Your task to perform on an android device: Go to calendar. Show me events next week Image 0: 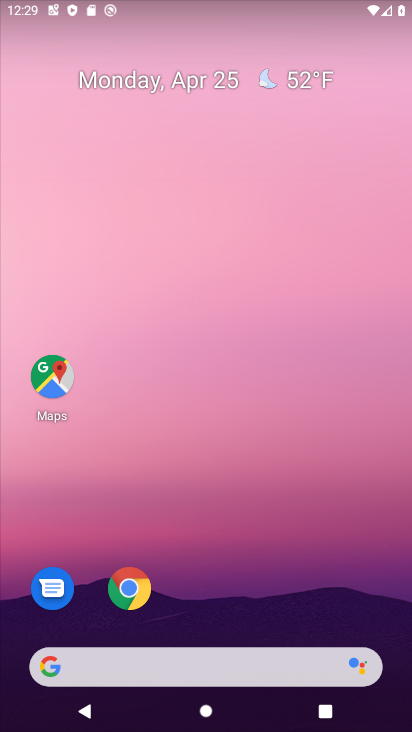
Step 0: drag from (268, 403) to (372, 18)
Your task to perform on an android device: Go to calendar. Show me events next week Image 1: 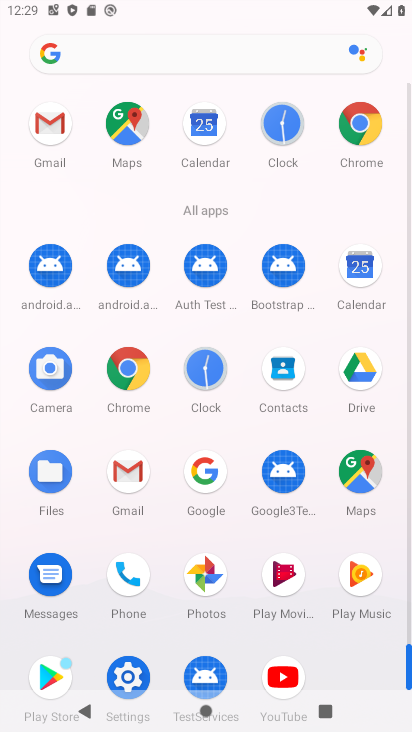
Step 1: click (206, 126)
Your task to perform on an android device: Go to calendar. Show me events next week Image 2: 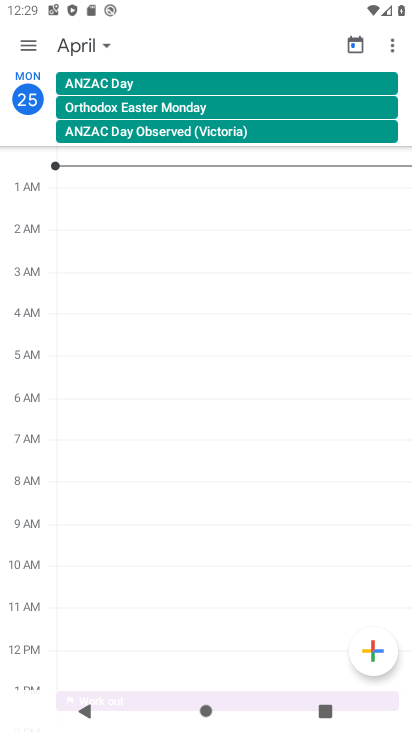
Step 2: click (46, 50)
Your task to perform on an android device: Go to calendar. Show me events next week Image 3: 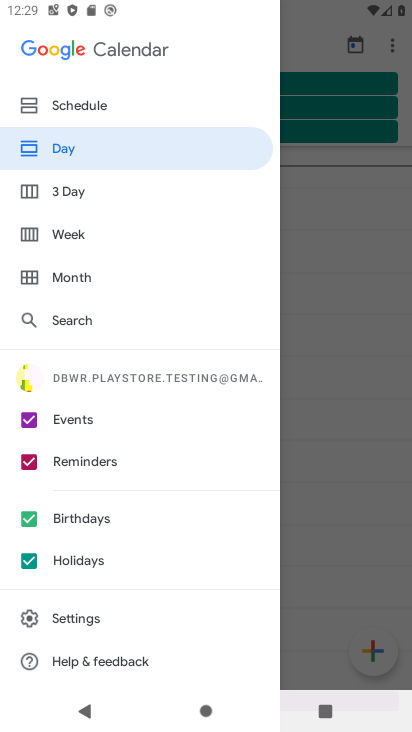
Step 3: click (108, 237)
Your task to perform on an android device: Go to calendar. Show me events next week Image 4: 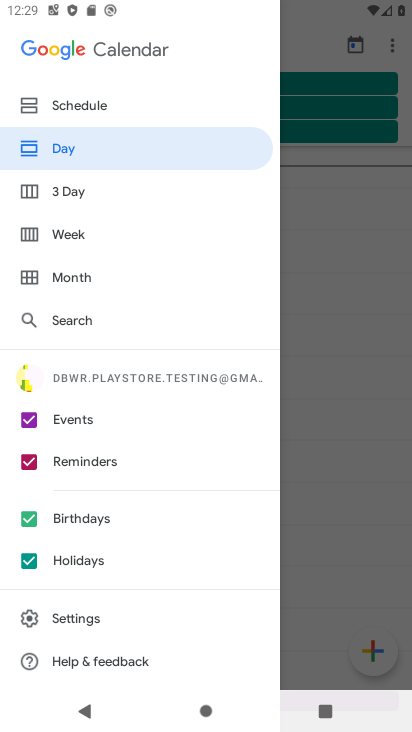
Step 4: click (91, 238)
Your task to perform on an android device: Go to calendar. Show me events next week Image 5: 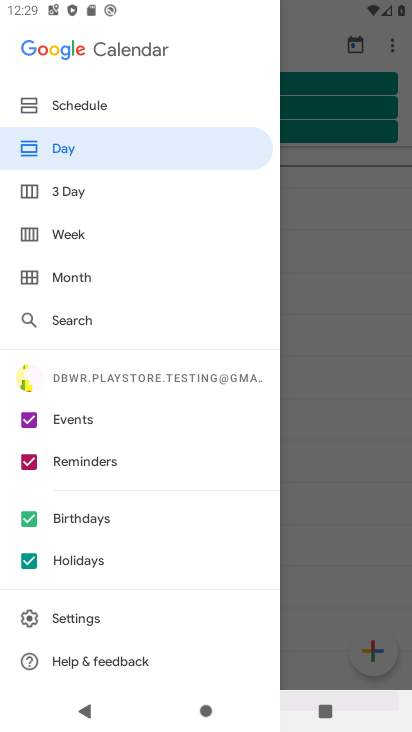
Step 5: click (96, 230)
Your task to perform on an android device: Go to calendar. Show me events next week Image 6: 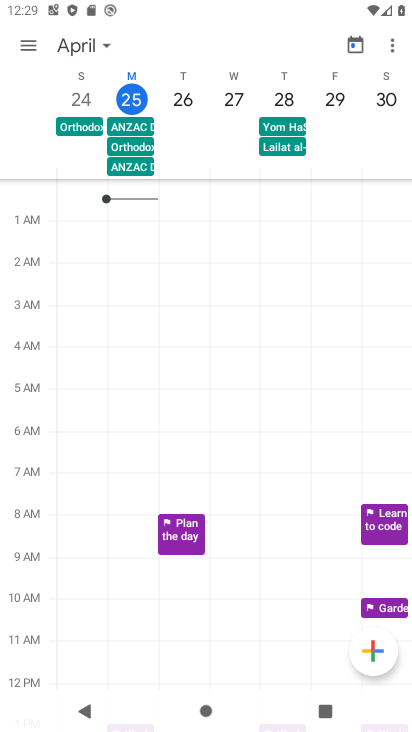
Step 6: click (90, 53)
Your task to perform on an android device: Go to calendar. Show me events next week Image 7: 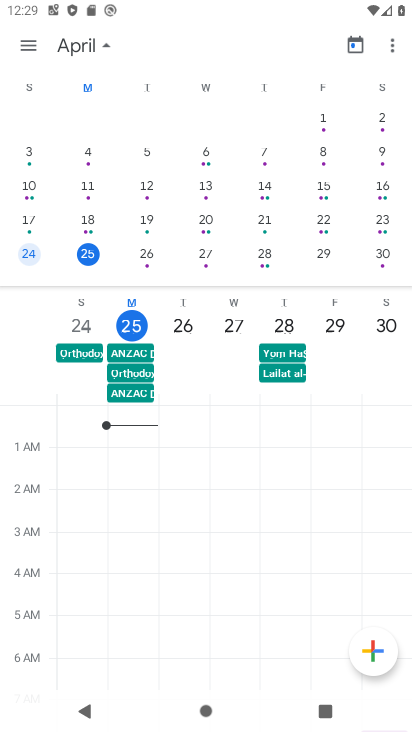
Step 7: drag from (375, 171) to (0, 129)
Your task to perform on an android device: Go to calendar. Show me events next week Image 8: 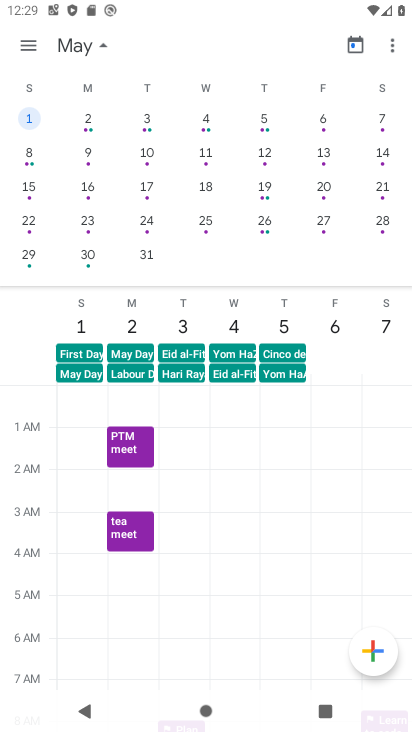
Step 8: click (32, 125)
Your task to perform on an android device: Go to calendar. Show me events next week Image 9: 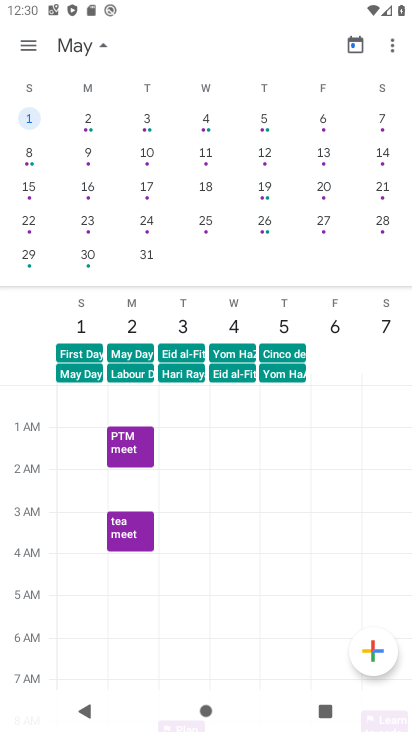
Step 9: click (95, 48)
Your task to perform on an android device: Go to calendar. Show me events next week Image 10: 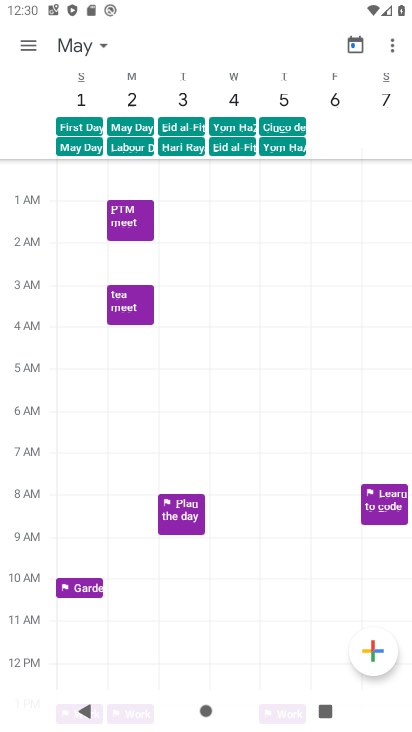
Step 10: task complete